Your task to perform on an android device: check out phone information Image 0: 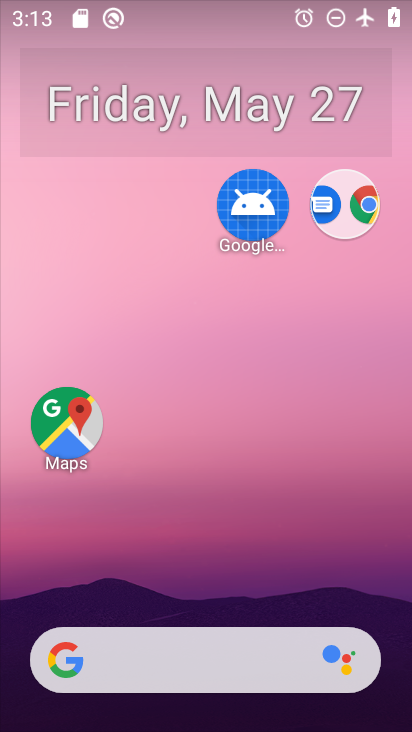
Step 0: drag from (167, 657) to (201, 200)
Your task to perform on an android device: check out phone information Image 1: 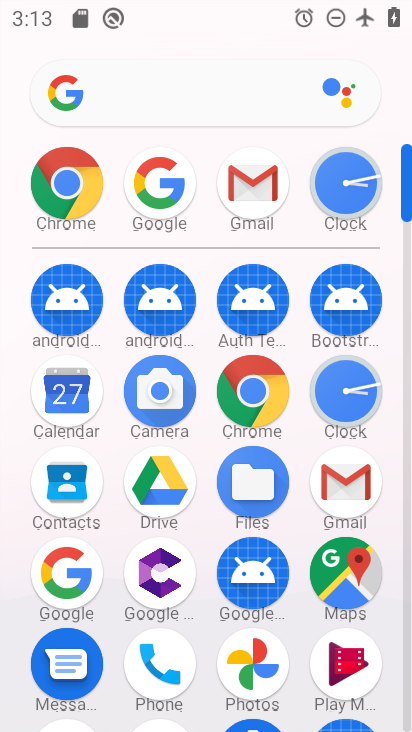
Step 1: drag from (207, 453) to (261, 278)
Your task to perform on an android device: check out phone information Image 2: 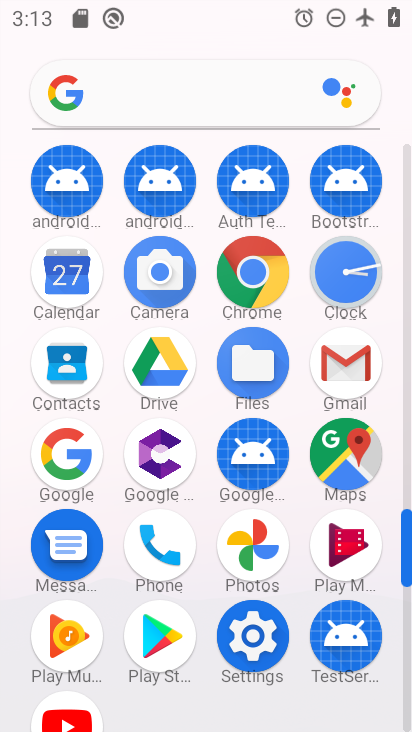
Step 2: click (239, 620)
Your task to perform on an android device: check out phone information Image 3: 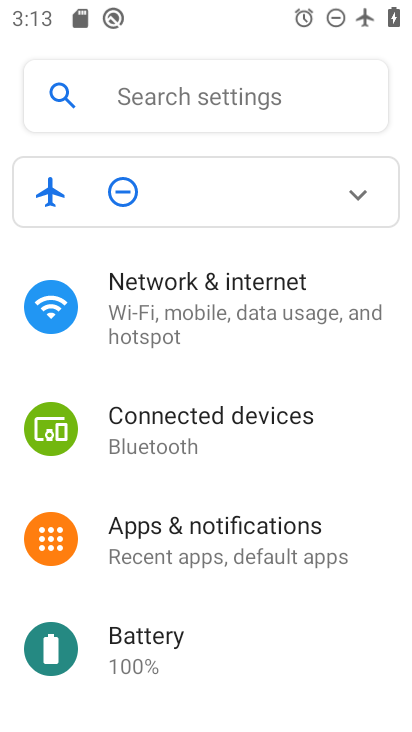
Step 3: drag from (239, 620) to (289, 223)
Your task to perform on an android device: check out phone information Image 4: 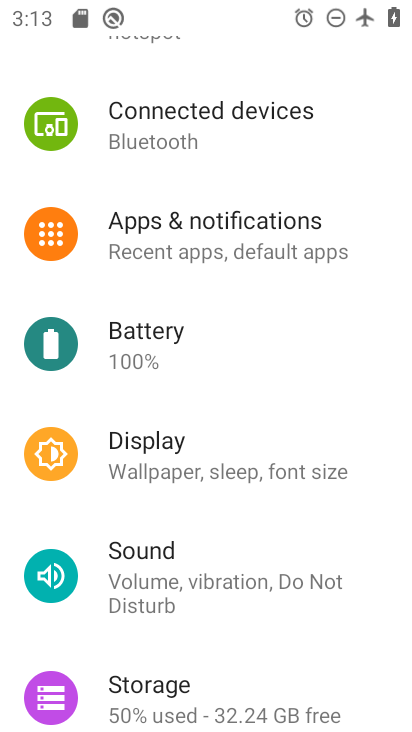
Step 4: drag from (207, 610) to (280, 194)
Your task to perform on an android device: check out phone information Image 5: 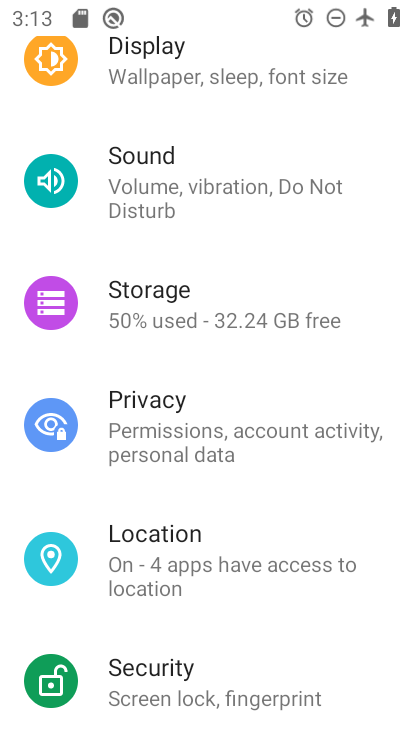
Step 5: drag from (183, 588) to (283, 178)
Your task to perform on an android device: check out phone information Image 6: 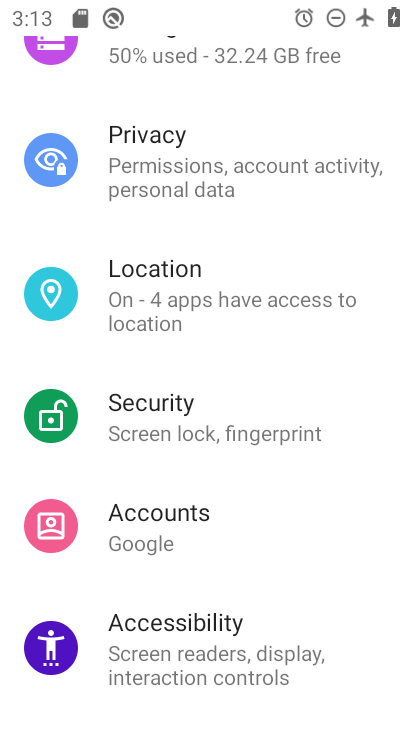
Step 6: drag from (175, 587) to (227, 203)
Your task to perform on an android device: check out phone information Image 7: 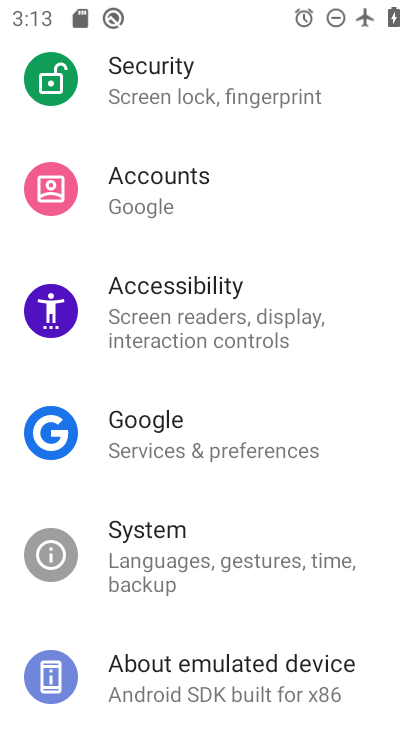
Step 7: drag from (164, 605) to (206, 395)
Your task to perform on an android device: check out phone information Image 8: 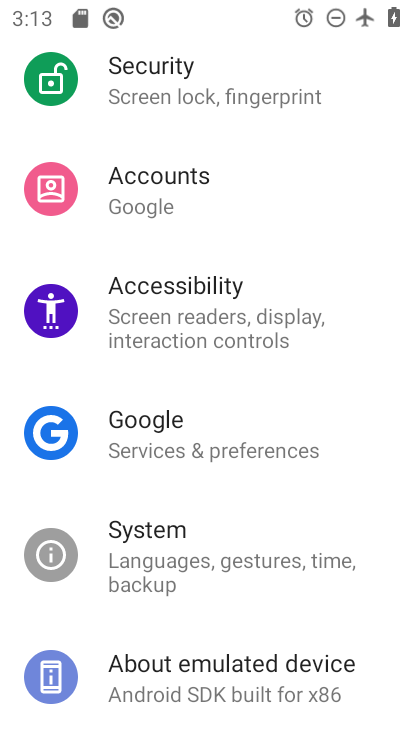
Step 8: click (191, 666)
Your task to perform on an android device: check out phone information Image 9: 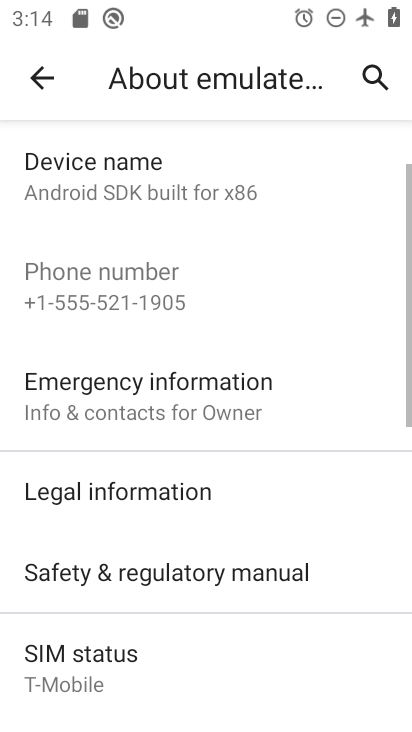
Step 9: task complete